Your task to perform on an android device: turn notification dots off Image 0: 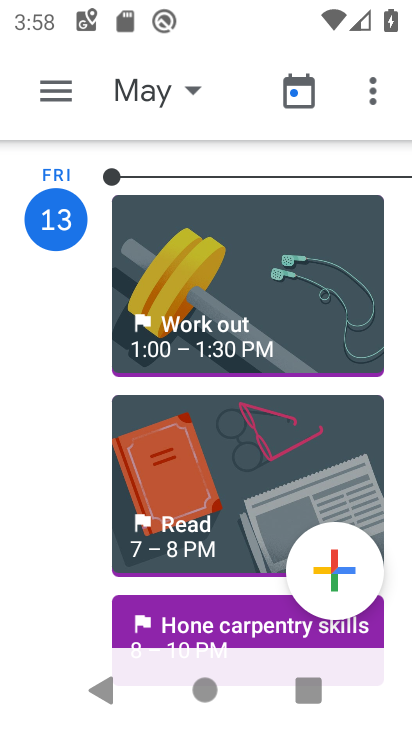
Step 0: press home button
Your task to perform on an android device: turn notification dots off Image 1: 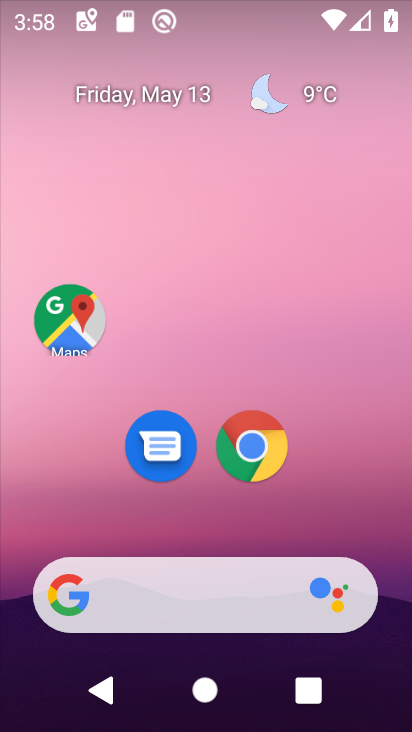
Step 1: drag from (220, 525) to (234, 37)
Your task to perform on an android device: turn notification dots off Image 2: 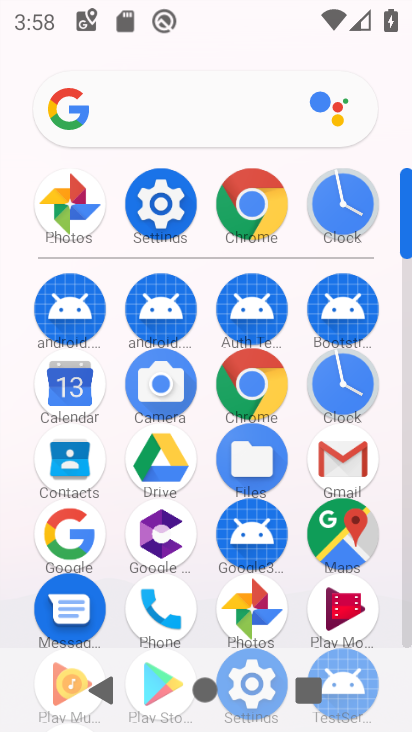
Step 2: click (153, 224)
Your task to perform on an android device: turn notification dots off Image 3: 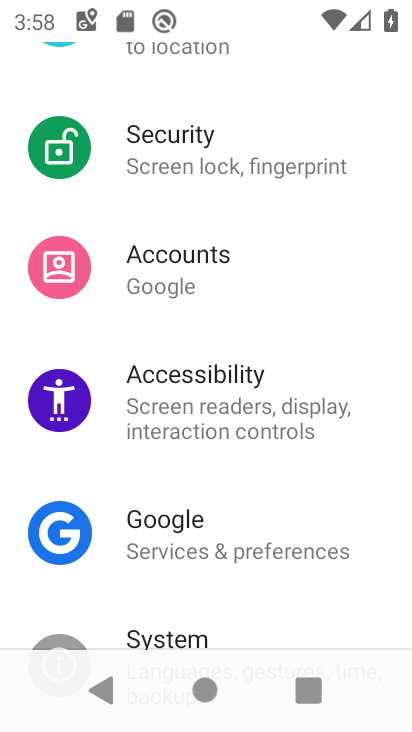
Step 3: drag from (193, 285) to (230, 532)
Your task to perform on an android device: turn notification dots off Image 4: 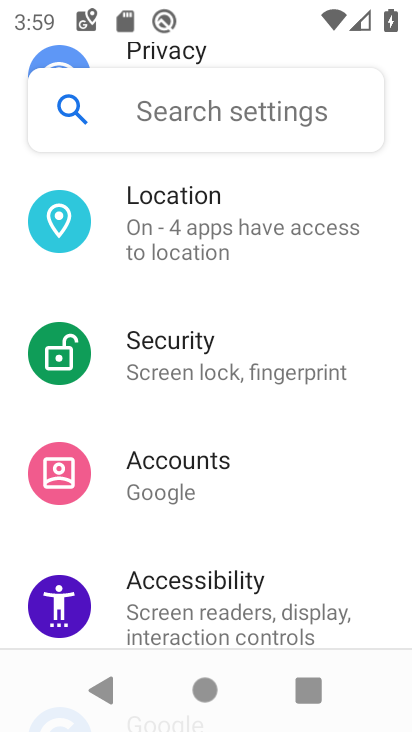
Step 4: drag from (231, 269) to (239, 566)
Your task to perform on an android device: turn notification dots off Image 5: 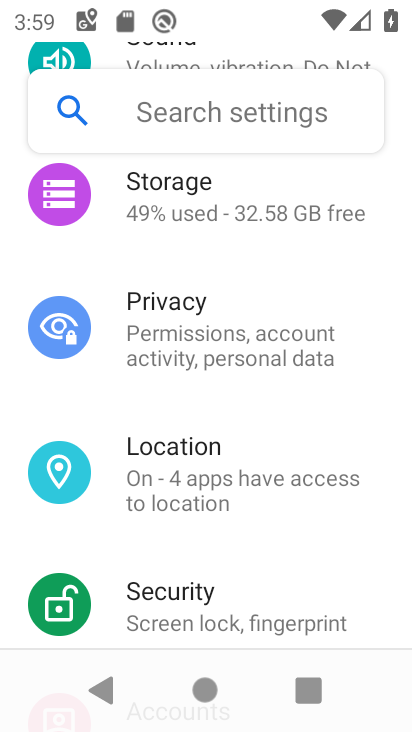
Step 5: drag from (202, 292) to (216, 639)
Your task to perform on an android device: turn notification dots off Image 6: 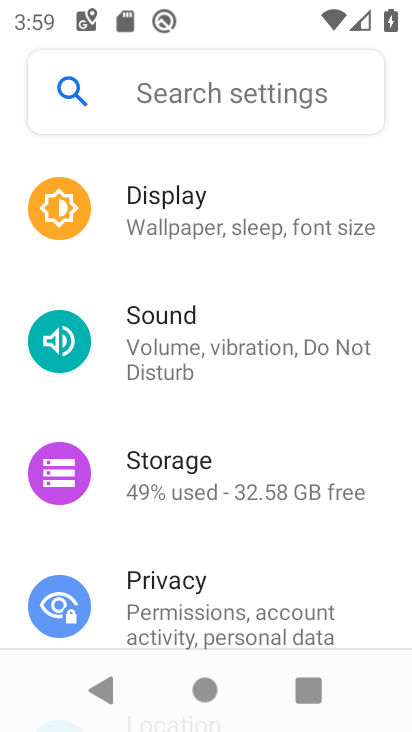
Step 6: drag from (258, 268) to (278, 553)
Your task to perform on an android device: turn notification dots off Image 7: 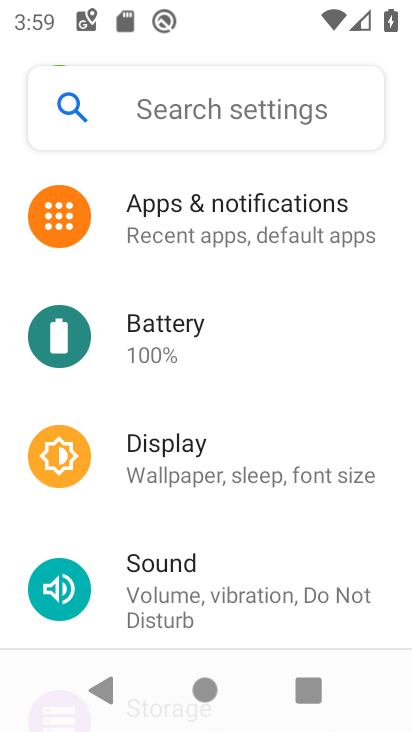
Step 7: click (233, 229)
Your task to perform on an android device: turn notification dots off Image 8: 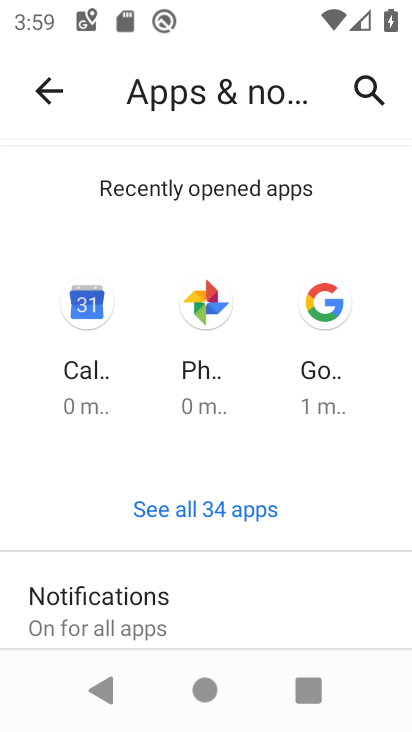
Step 8: click (215, 583)
Your task to perform on an android device: turn notification dots off Image 9: 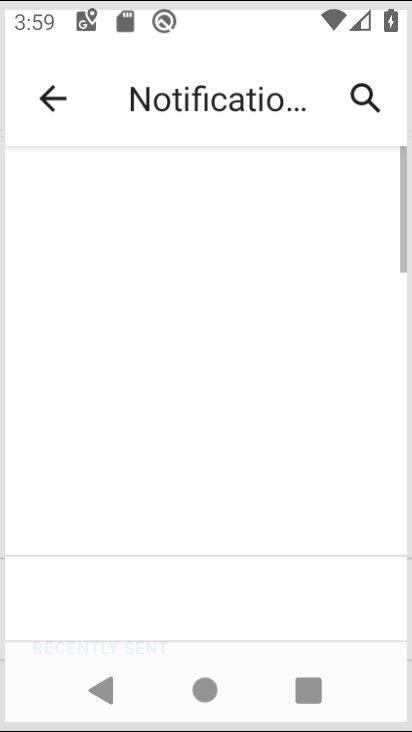
Step 9: drag from (224, 595) to (221, 232)
Your task to perform on an android device: turn notification dots off Image 10: 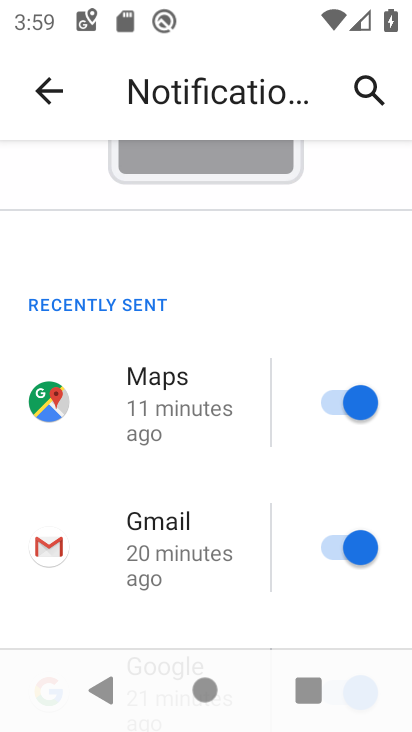
Step 10: drag from (195, 541) to (204, 182)
Your task to perform on an android device: turn notification dots off Image 11: 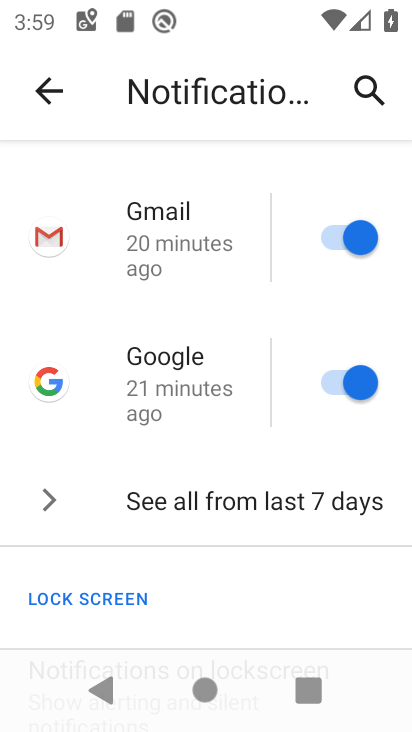
Step 11: drag from (208, 572) to (229, 125)
Your task to perform on an android device: turn notification dots off Image 12: 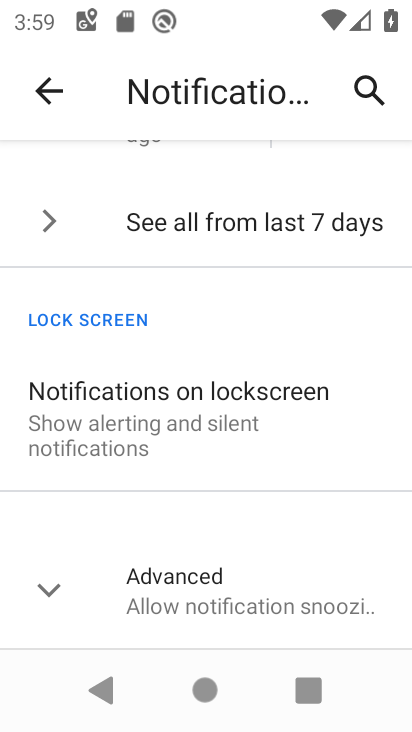
Step 12: click (186, 591)
Your task to perform on an android device: turn notification dots off Image 13: 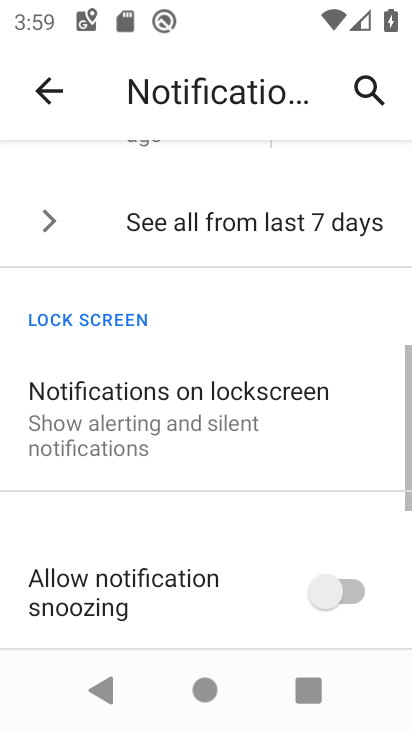
Step 13: task complete